Your task to perform on an android device: toggle show notifications on the lock screen Image 0: 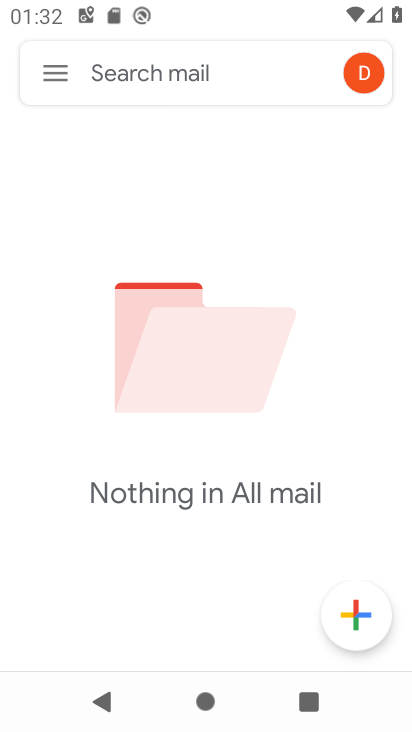
Step 0: press home button
Your task to perform on an android device: toggle show notifications on the lock screen Image 1: 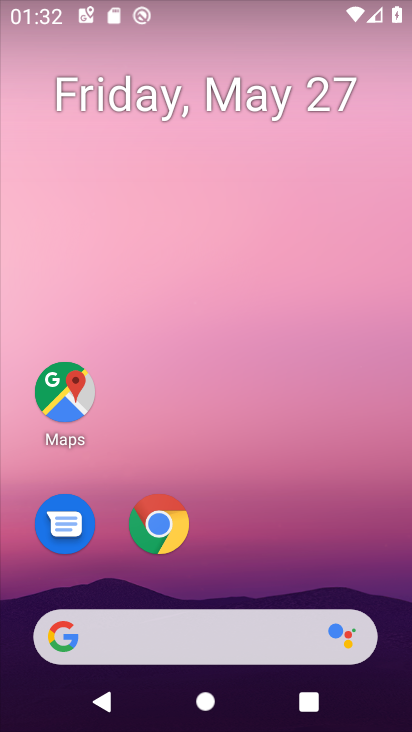
Step 1: drag from (230, 533) to (232, 42)
Your task to perform on an android device: toggle show notifications on the lock screen Image 2: 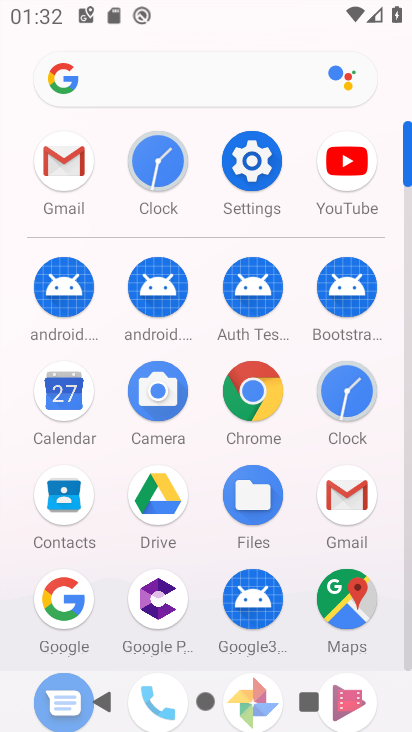
Step 2: click (247, 162)
Your task to perform on an android device: toggle show notifications on the lock screen Image 3: 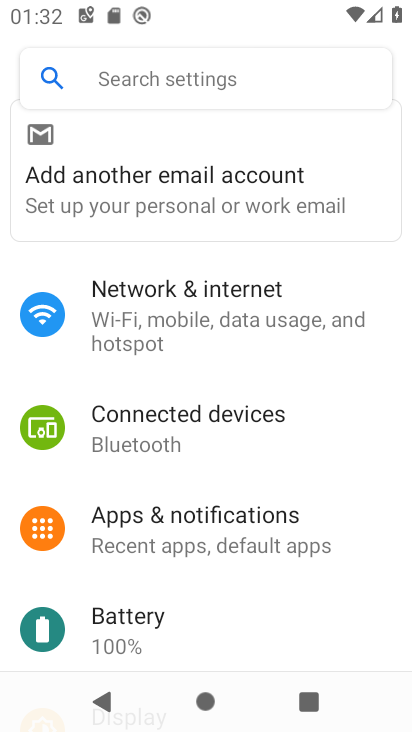
Step 3: click (222, 516)
Your task to perform on an android device: toggle show notifications on the lock screen Image 4: 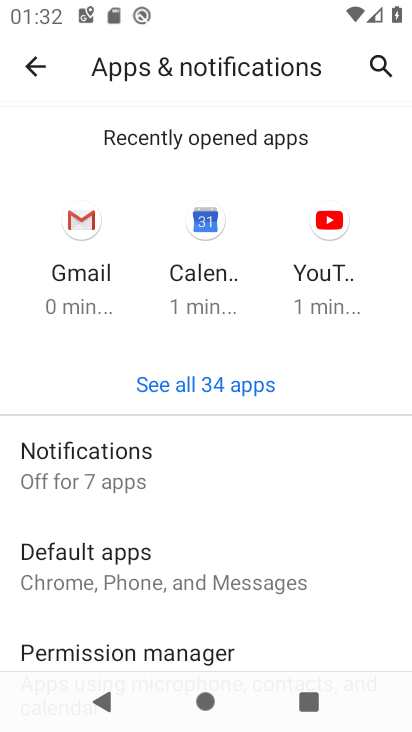
Step 4: click (147, 461)
Your task to perform on an android device: toggle show notifications on the lock screen Image 5: 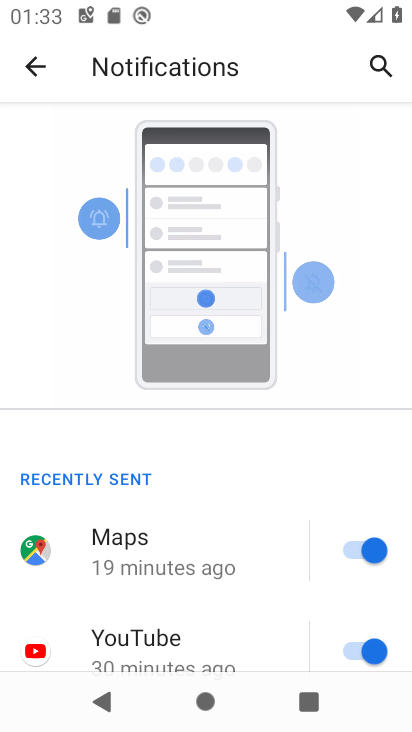
Step 5: drag from (232, 611) to (256, 277)
Your task to perform on an android device: toggle show notifications on the lock screen Image 6: 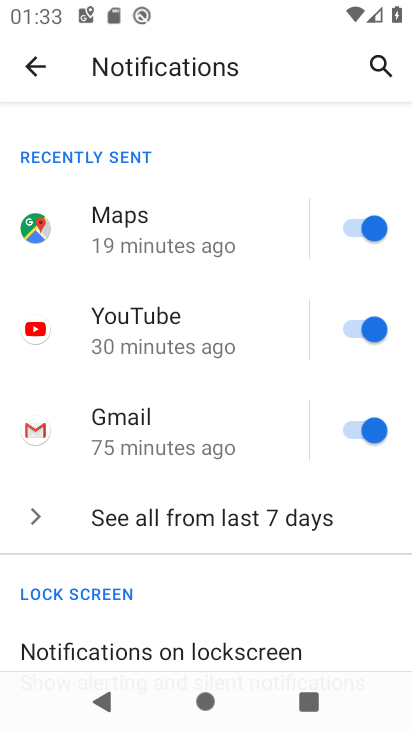
Step 6: drag from (182, 613) to (197, 328)
Your task to perform on an android device: toggle show notifications on the lock screen Image 7: 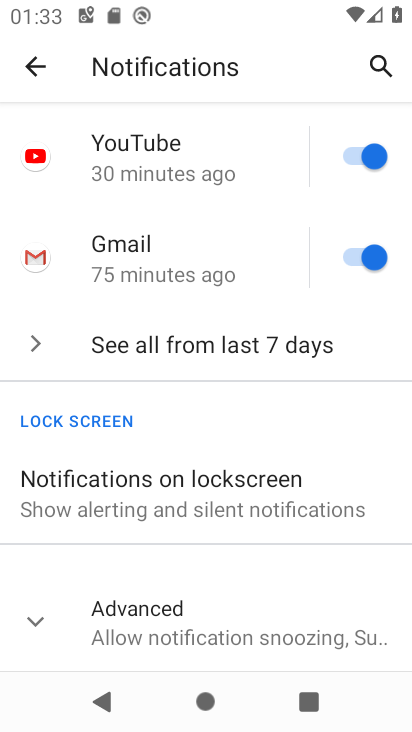
Step 7: click (212, 484)
Your task to perform on an android device: toggle show notifications on the lock screen Image 8: 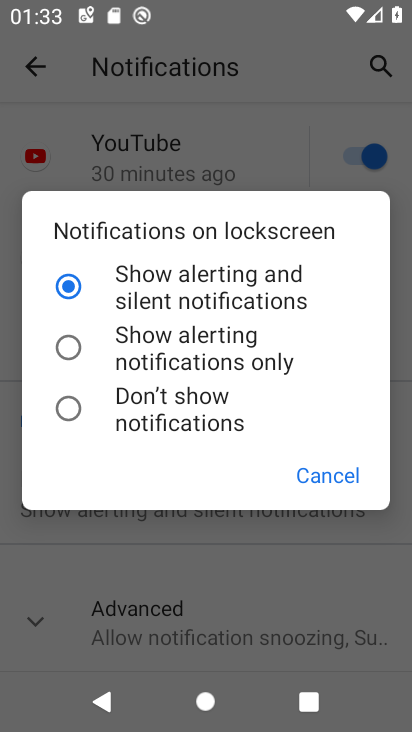
Step 8: click (72, 406)
Your task to perform on an android device: toggle show notifications on the lock screen Image 9: 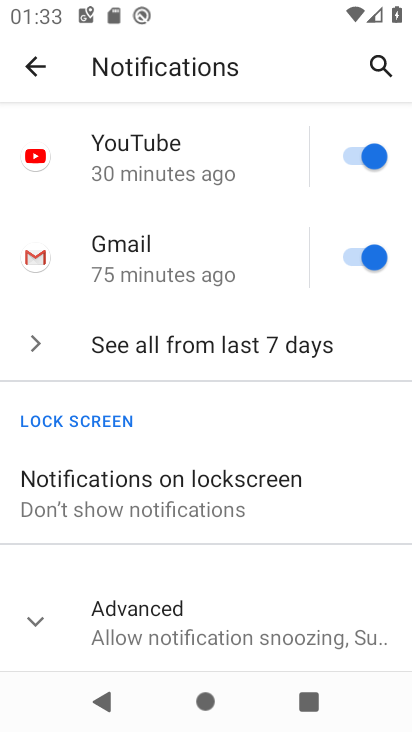
Step 9: task complete